Your task to perform on an android device: Open network settings Image 0: 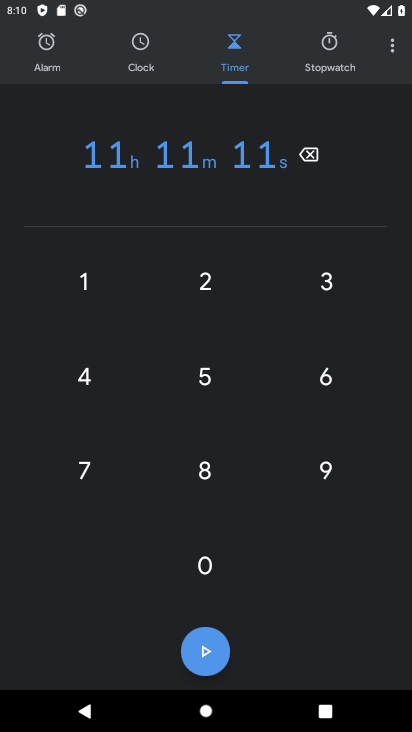
Step 0: press home button
Your task to perform on an android device: Open network settings Image 1: 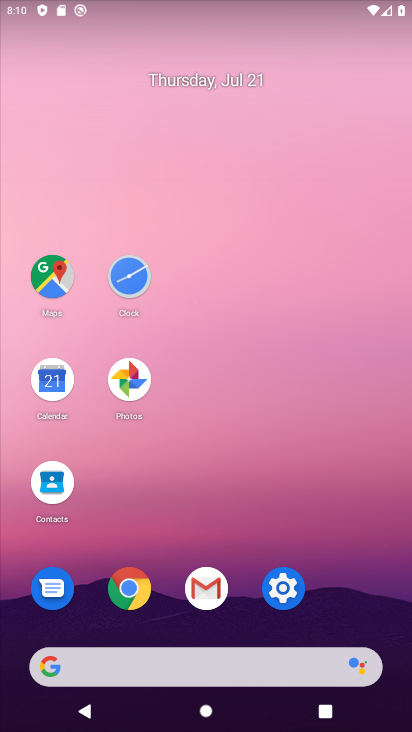
Step 1: click (280, 587)
Your task to perform on an android device: Open network settings Image 2: 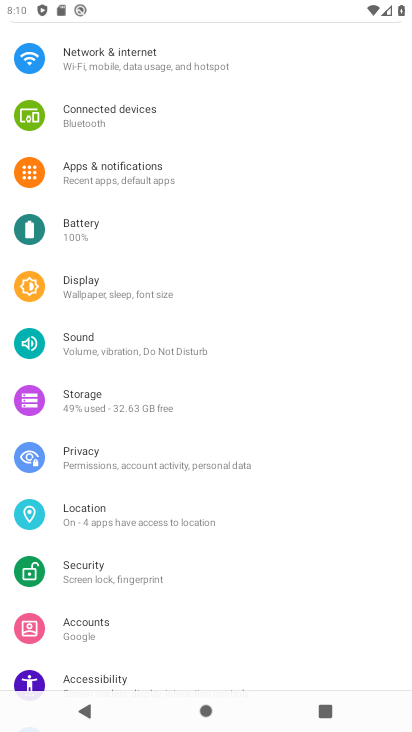
Step 2: click (118, 46)
Your task to perform on an android device: Open network settings Image 3: 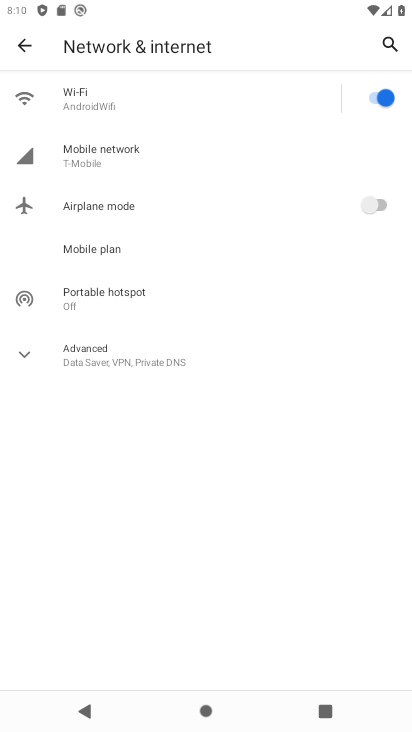
Step 3: click (120, 150)
Your task to perform on an android device: Open network settings Image 4: 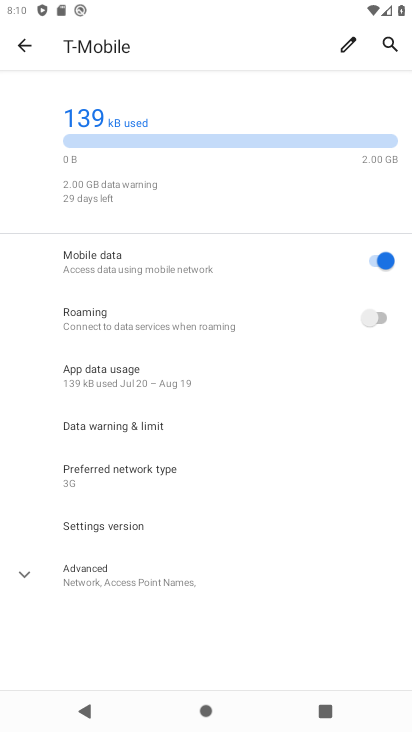
Step 4: task complete